Your task to perform on an android device: open a new tab in the chrome app Image 0: 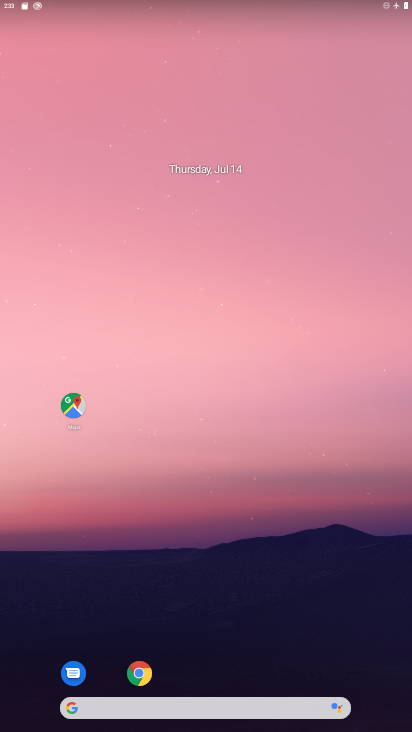
Step 0: drag from (222, 699) to (301, 251)
Your task to perform on an android device: open a new tab in the chrome app Image 1: 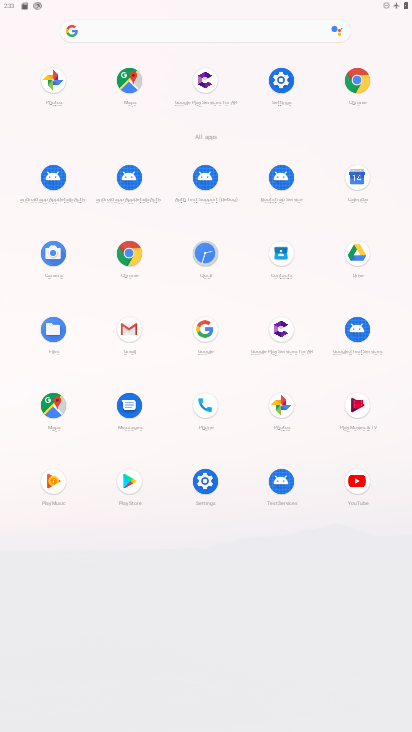
Step 1: click (135, 250)
Your task to perform on an android device: open a new tab in the chrome app Image 2: 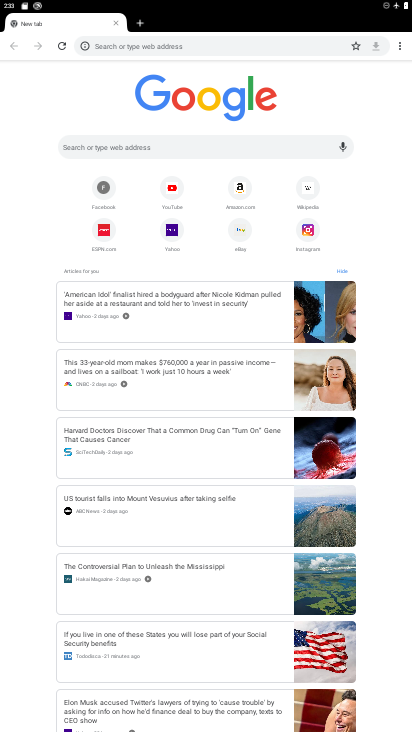
Step 2: task complete